Your task to perform on an android device: turn on the 12-hour format for clock Image 0: 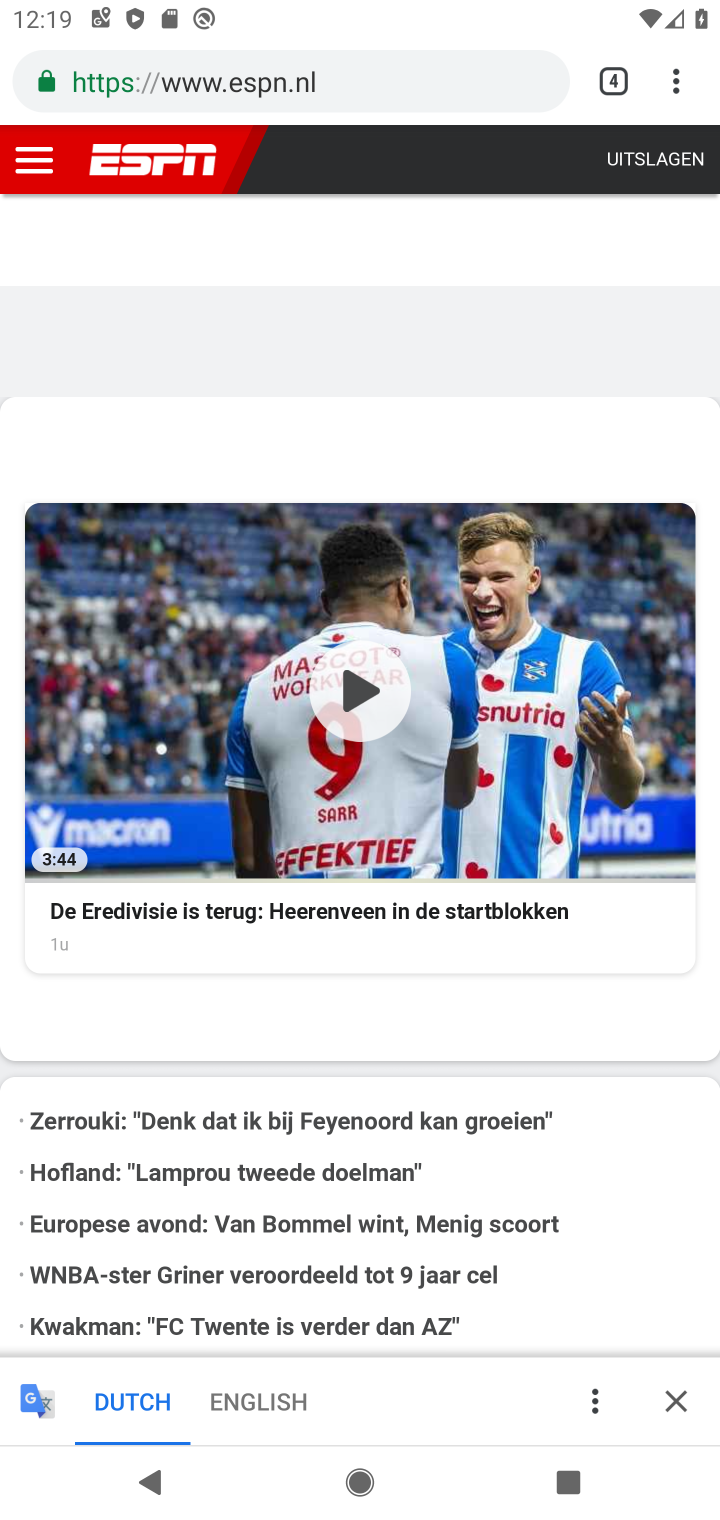
Step 0: press back button
Your task to perform on an android device: turn on the 12-hour format for clock Image 1: 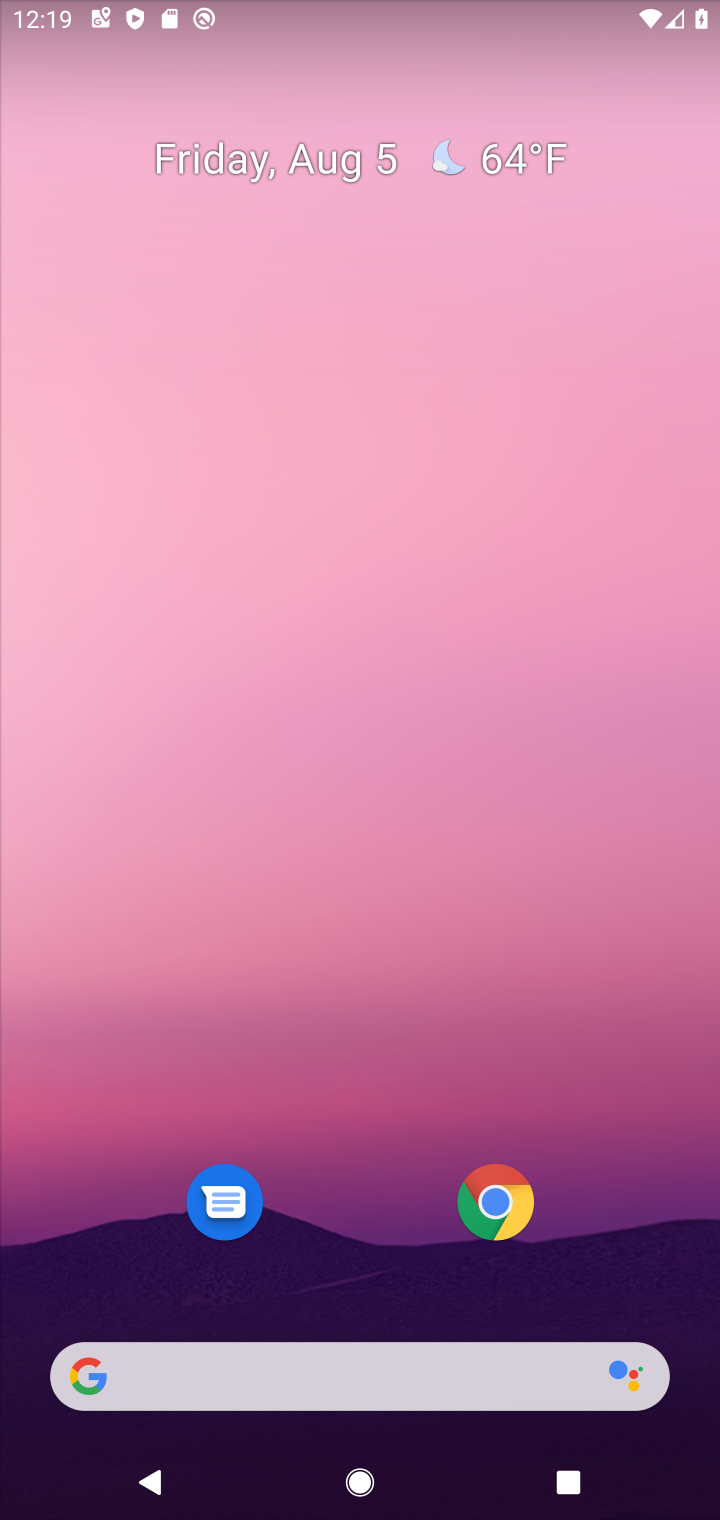
Step 1: drag from (369, 1015) to (513, 154)
Your task to perform on an android device: turn on the 12-hour format for clock Image 2: 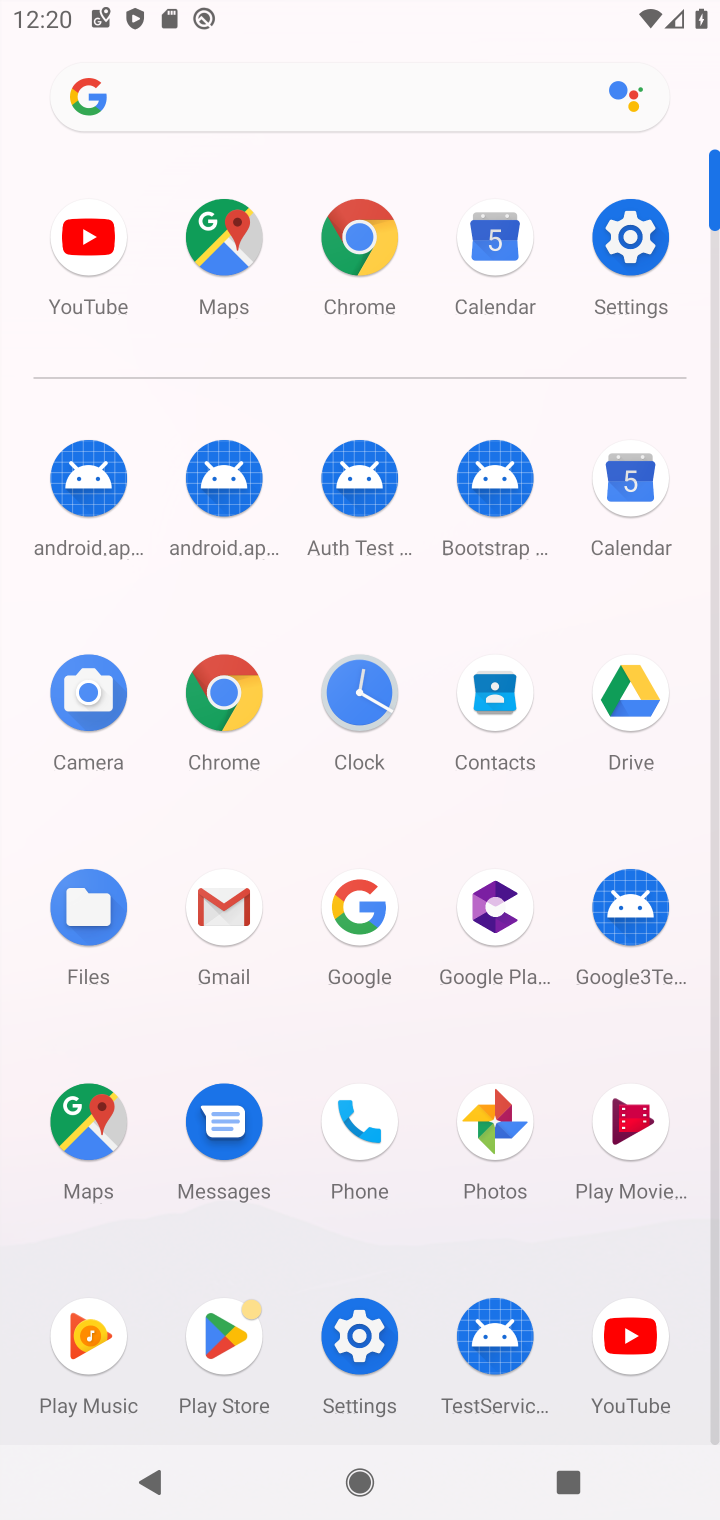
Step 2: click (378, 684)
Your task to perform on an android device: turn on the 12-hour format for clock Image 3: 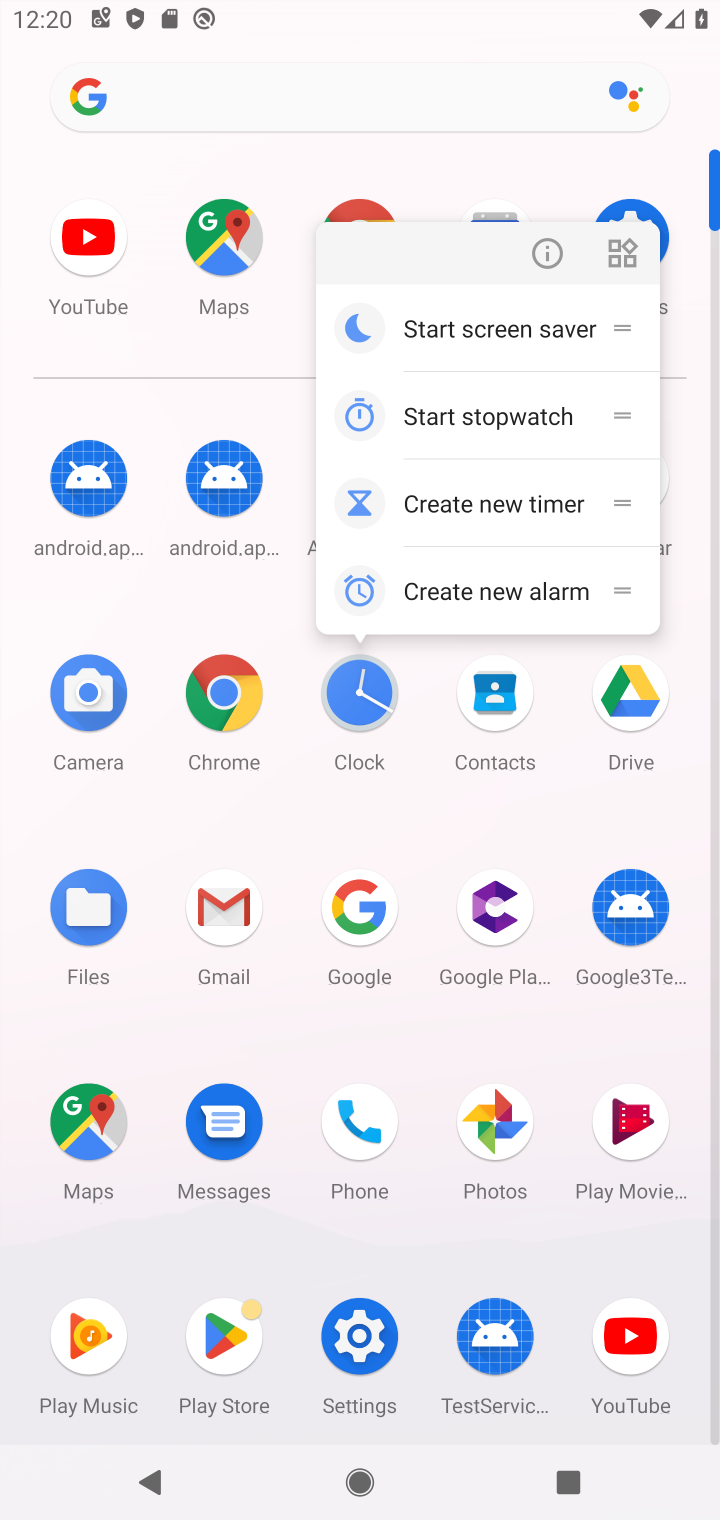
Step 3: click (365, 694)
Your task to perform on an android device: turn on the 12-hour format for clock Image 4: 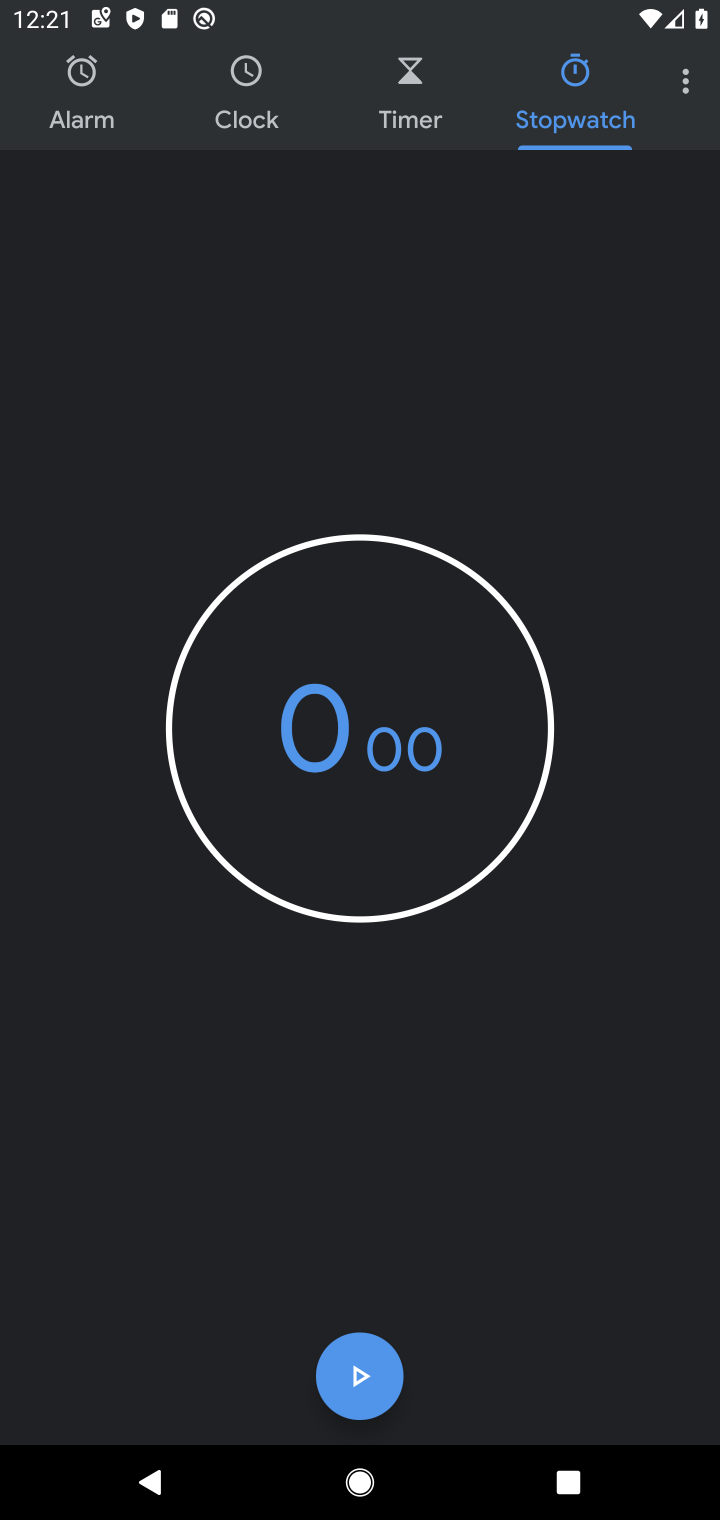
Step 4: click (689, 69)
Your task to perform on an android device: turn on the 12-hour format for clock Image 5: 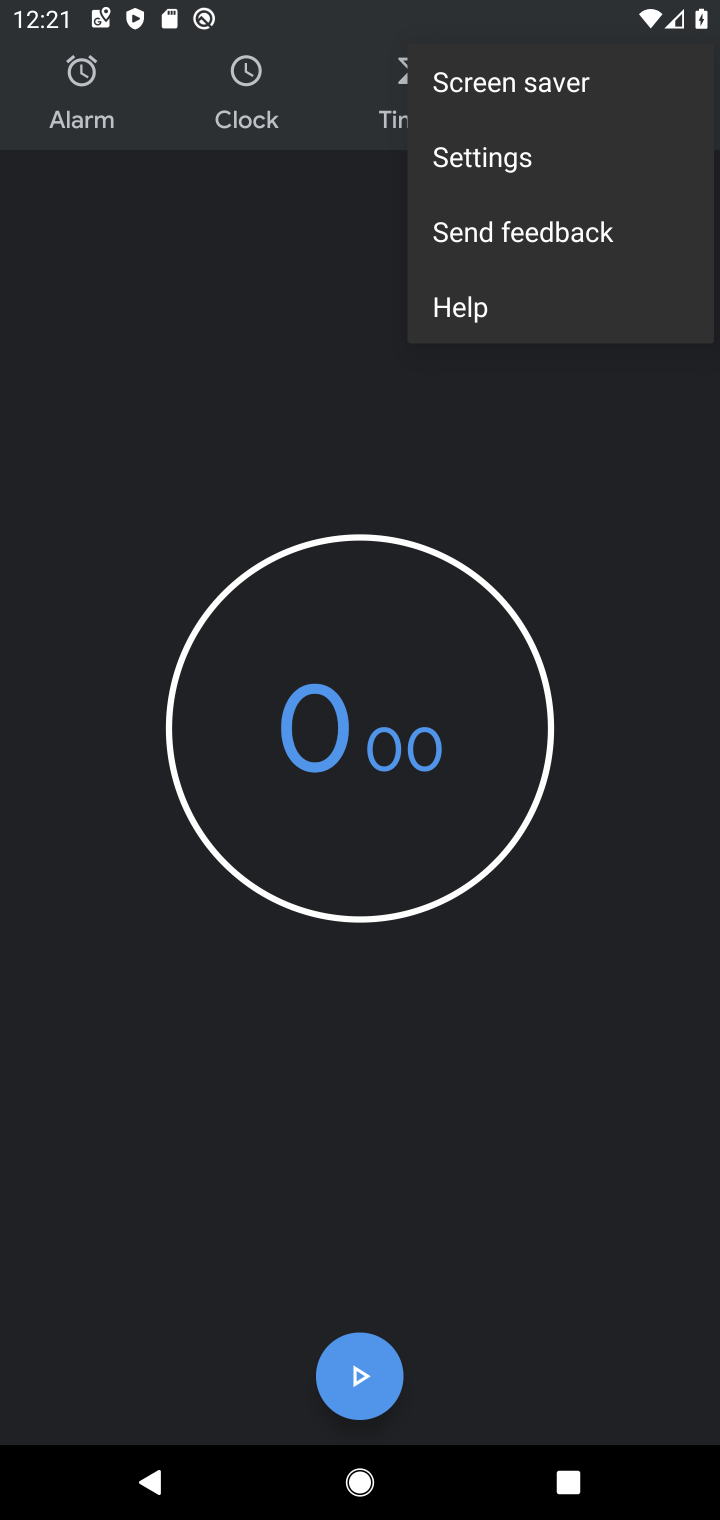
Step 5: click (532, 159)
Your task to perform on an android device: turn on the 12-hour format for clock Image 6: 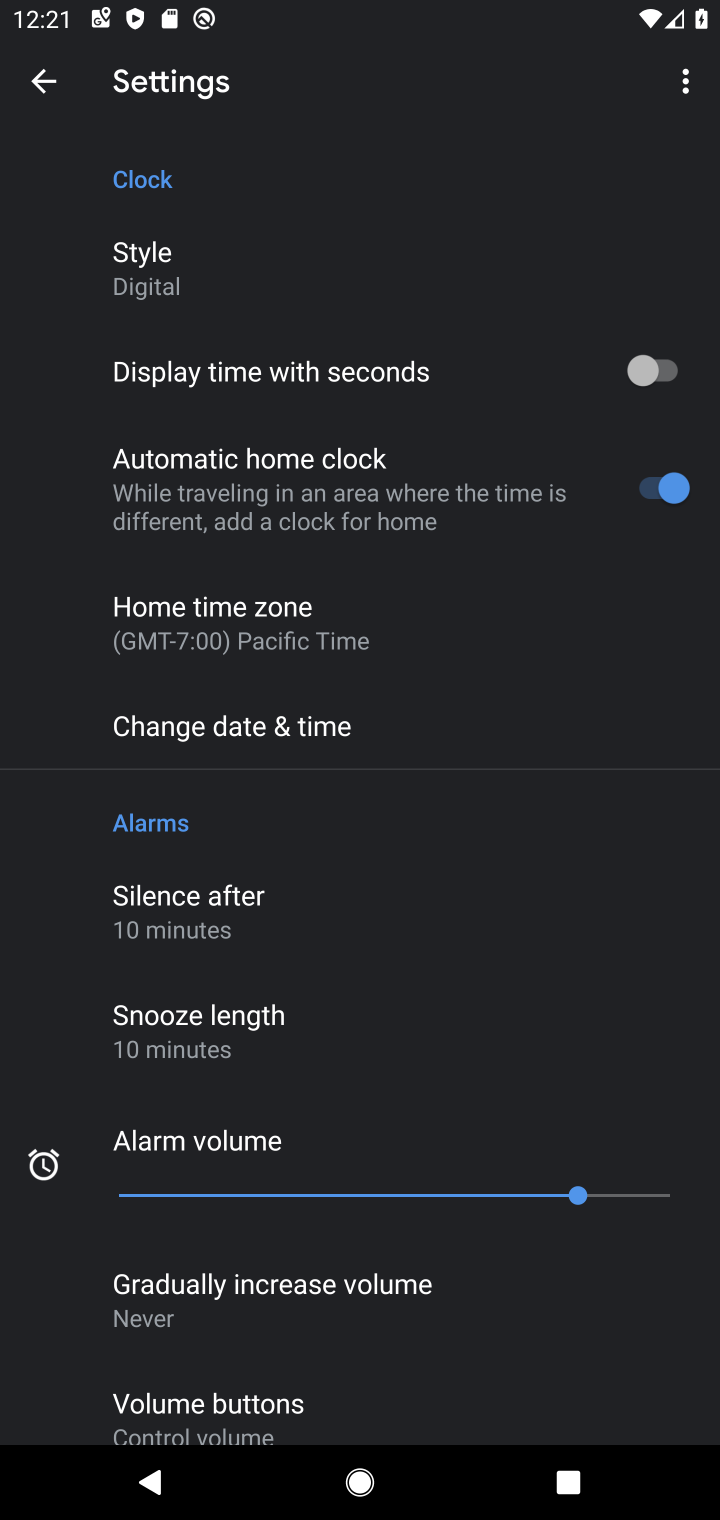
Step 6: click (309, 725)
Your task to perform on an android device: turn on the 12-hour format for clock Image 7: 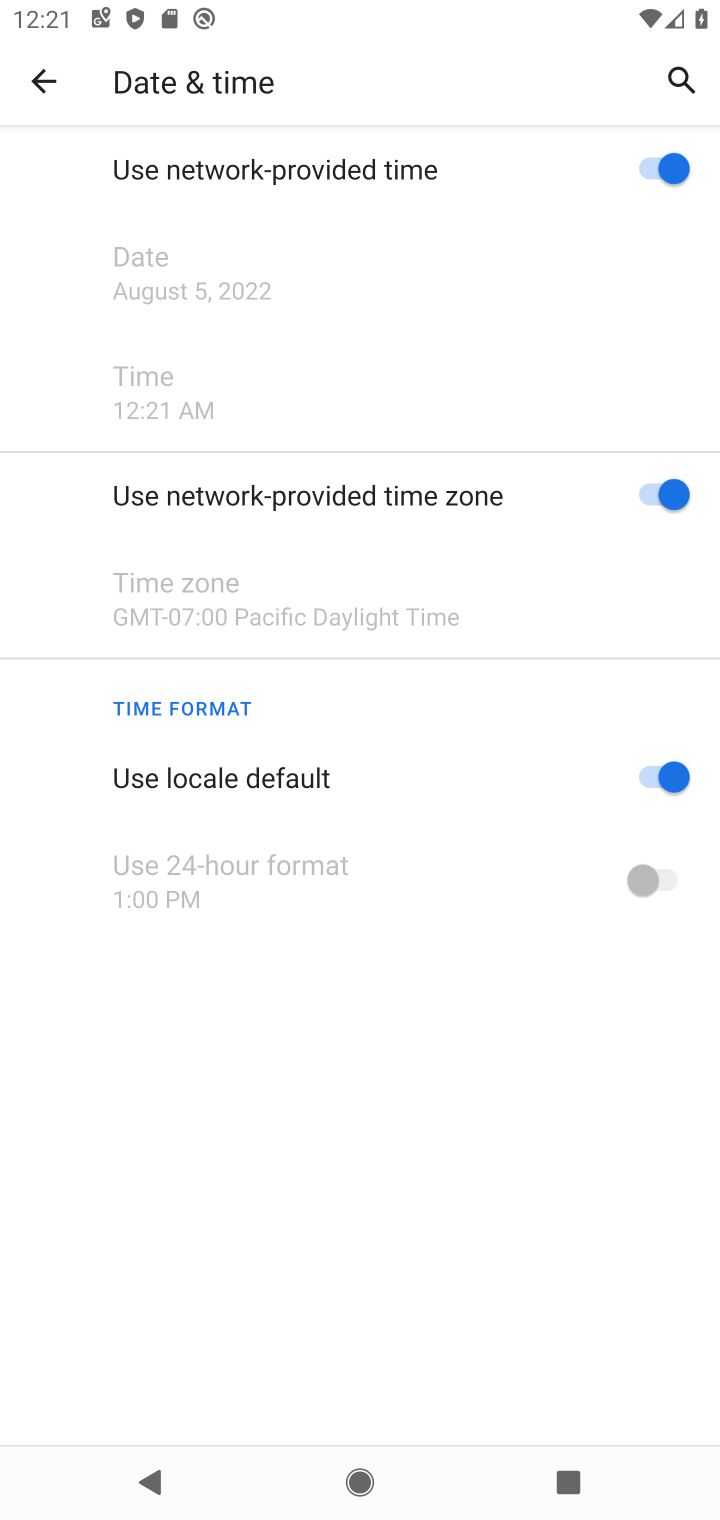
Step 7: click (50, 89)
Your task to perform on an android device: turn on the 12-hour format for clock Image 8: 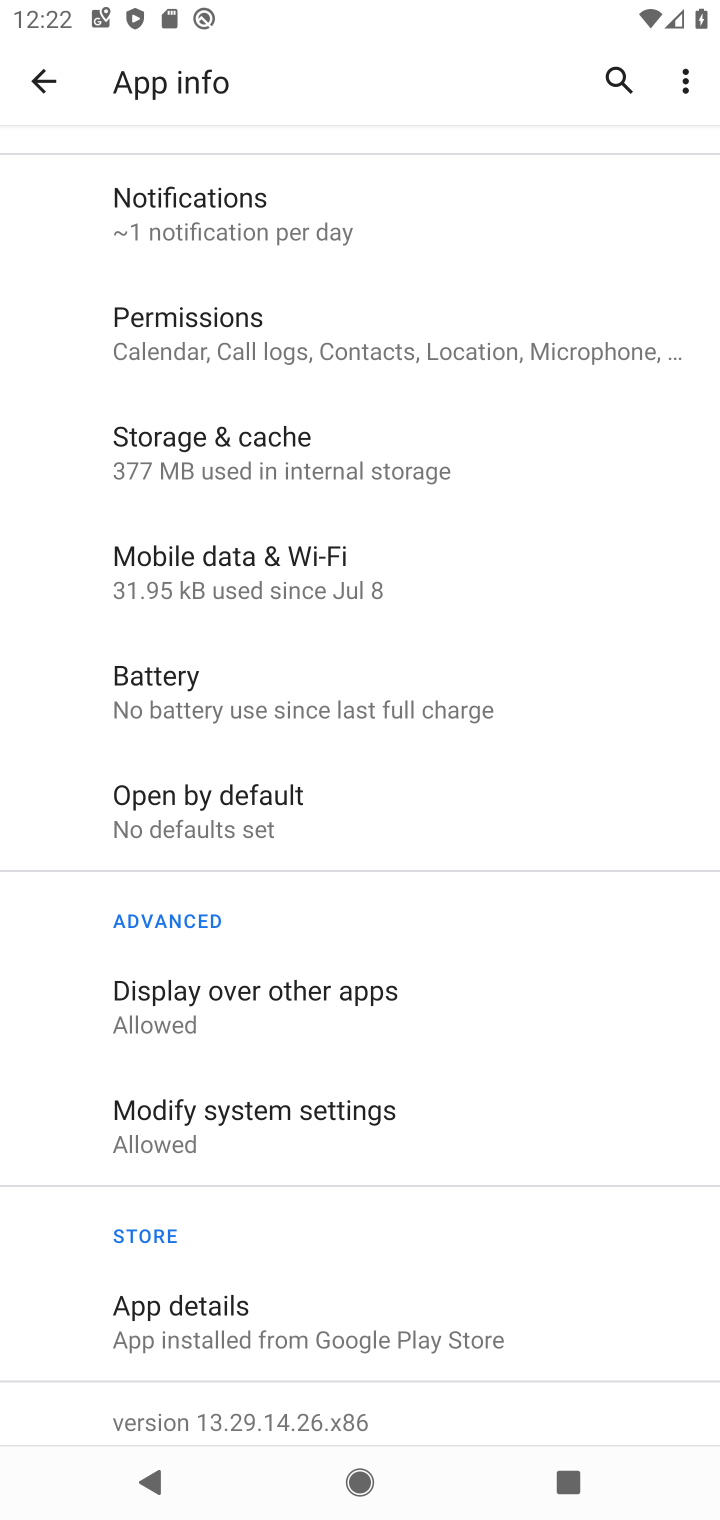
Step 8: press back button
Your task to perform on an android device: turn on the 12-hour format for clock Image 9: 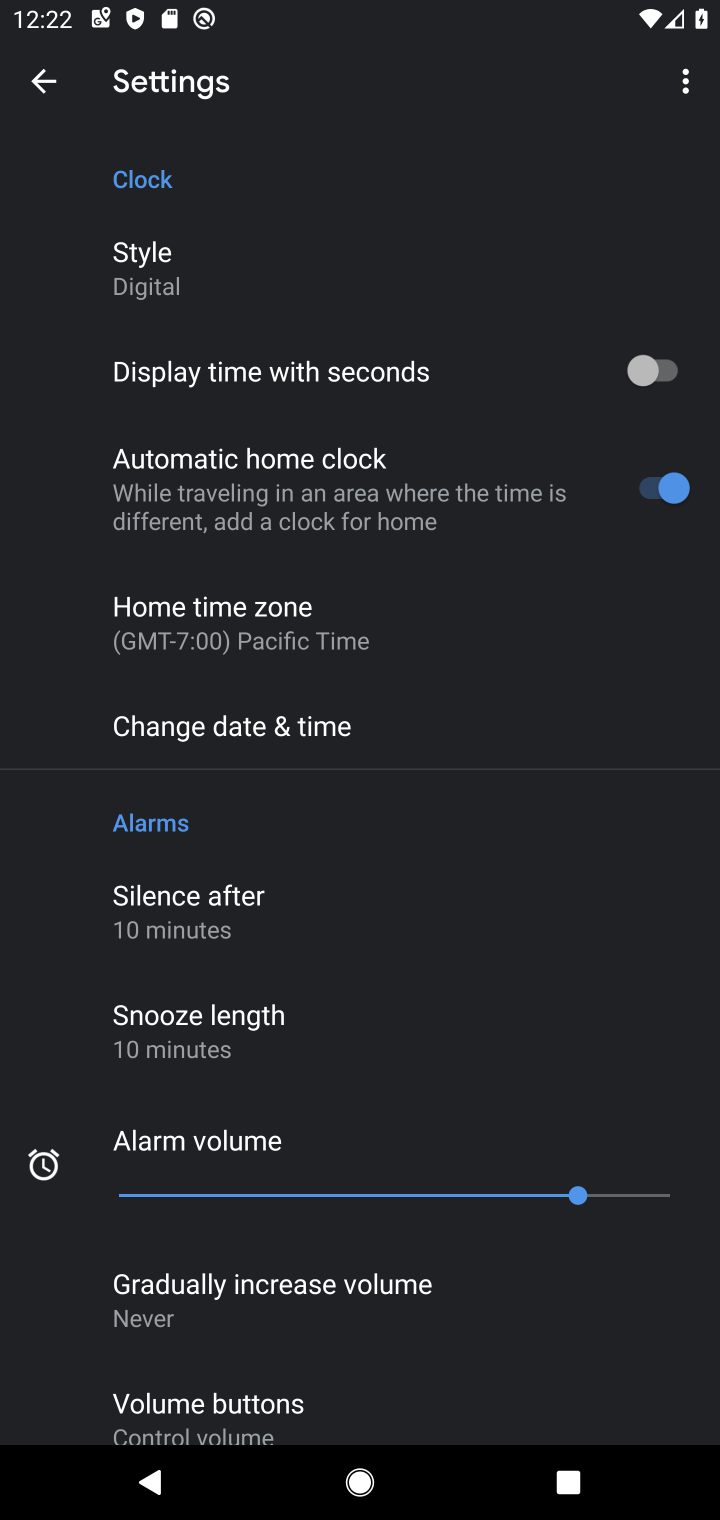
Step 9: click (309, 754)
Your task to perform on an android device: turn on the 12-hour format for clock Image 10: 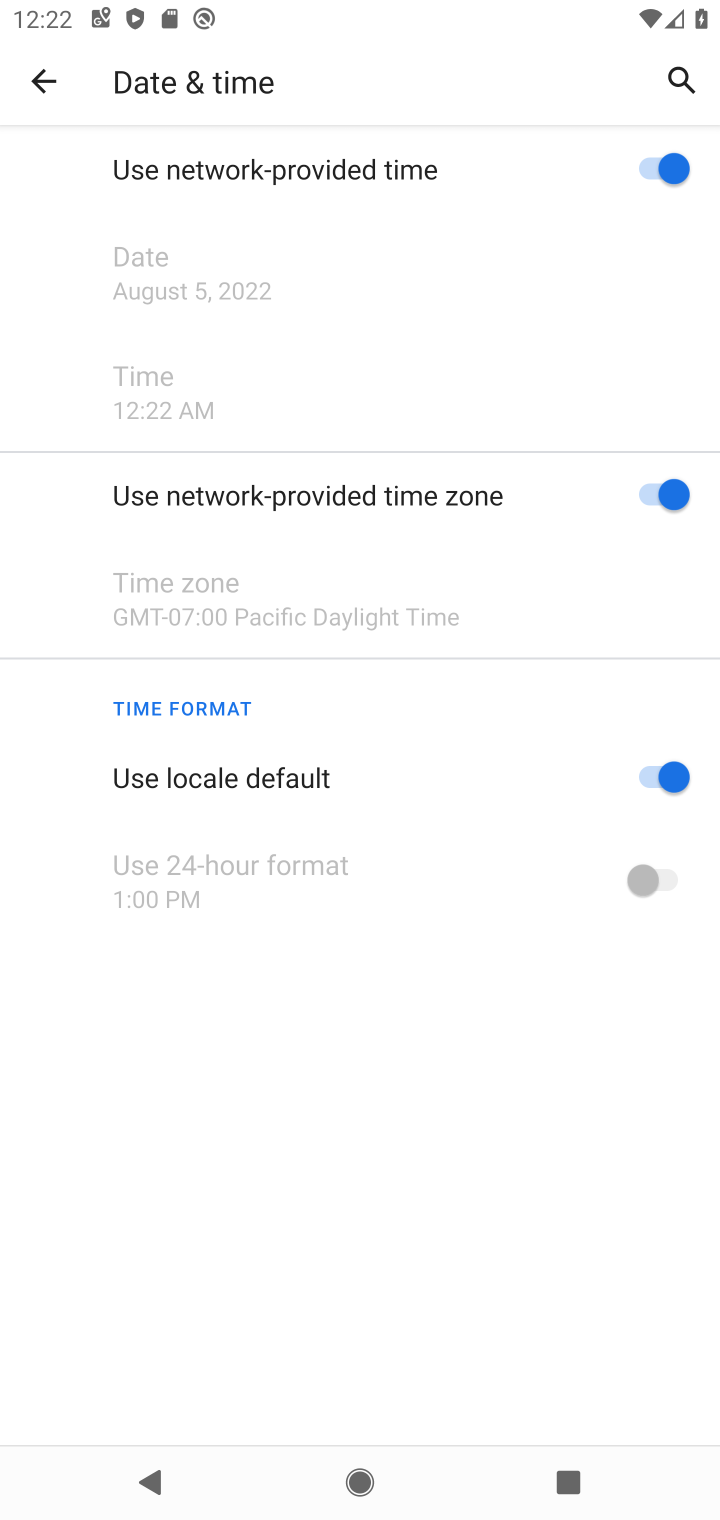
Step 10: task complete